Your task to perform on an android device: turn off notifications settings in the gmail app Image 0: 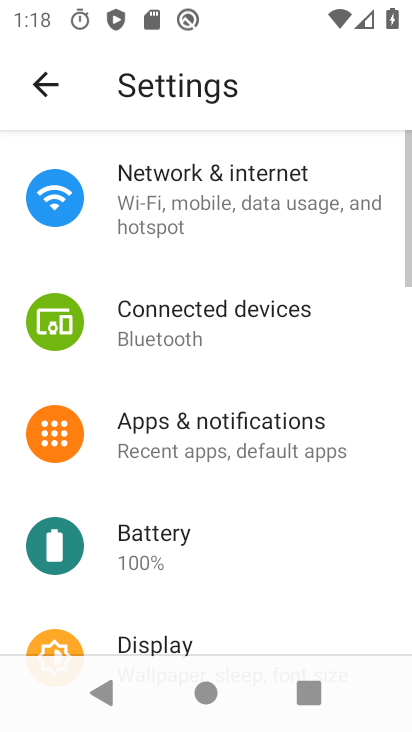
Step 0: press home button
Your task to perform on an android device: turn off notifications settings in the gmail app Image 1: 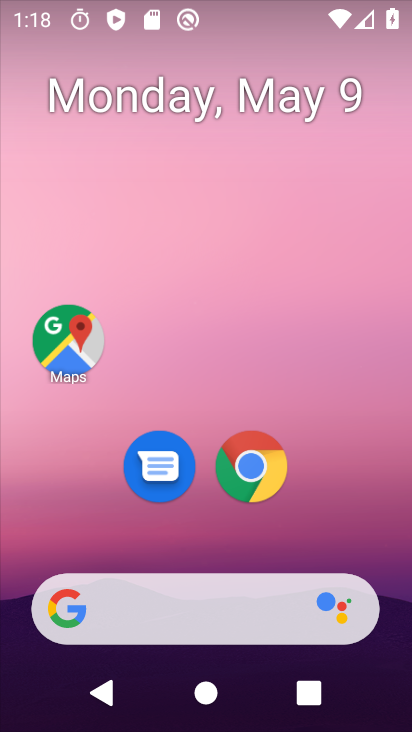
Step 1: drag from (297, 634) to (324, 211)
Your task to perform on an android device: turn off notifications settings in the gmail app Image 2: 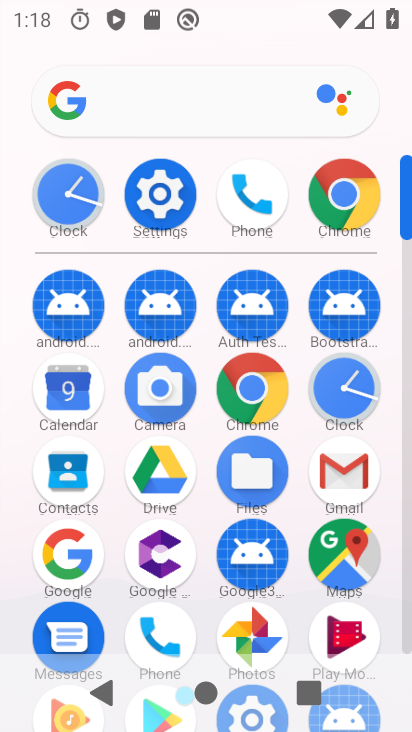
Step 2: click (321, 476)
Your task to perform on an android device: turn off notifications settings in the gmail app Image 3: 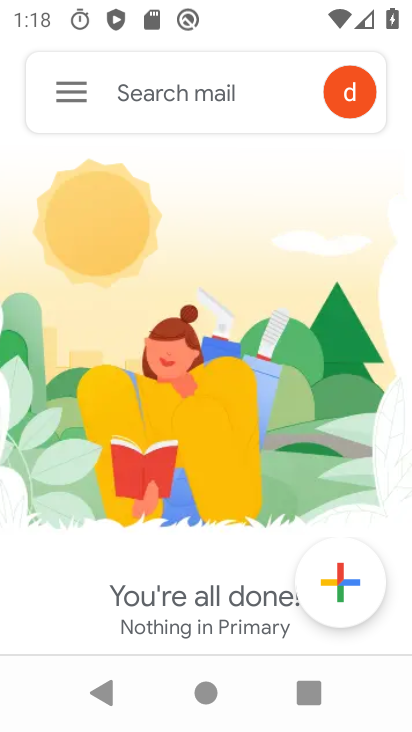
Step 3: click (67, 100)
Your task to perform on an android device: turn off notifications settings in the gmail app Image 4: 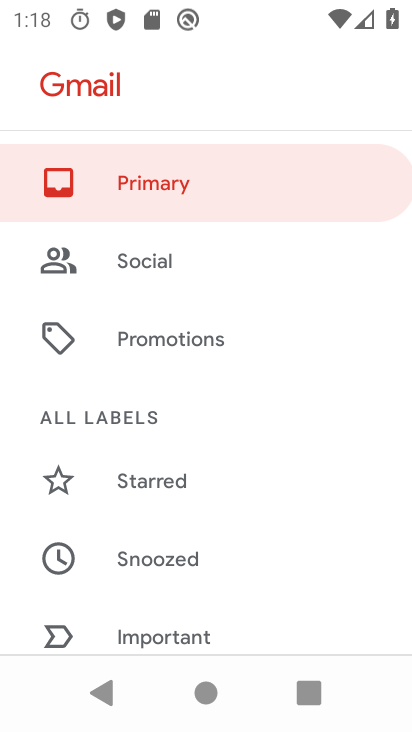
Step 4: drag from (134, 493) to (167, 244)
Your task to perform on an android device: turn off notifications settings in the gmail app Image 5: 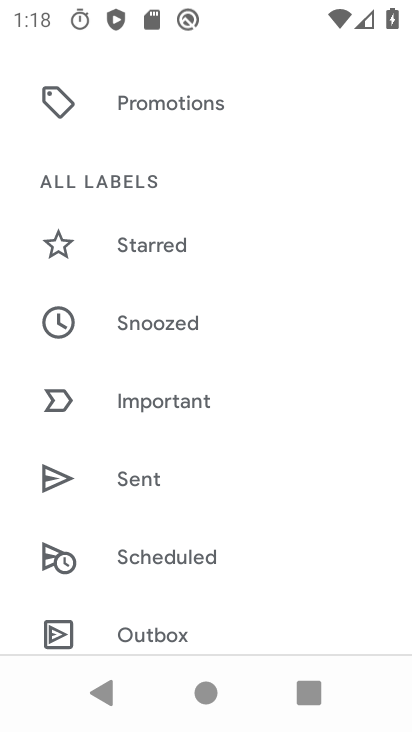
Step 5: drag from (148, 527) to (190, 298)
Your task to perform on an android device: turn off notifications settings in the gmail app Image 6: 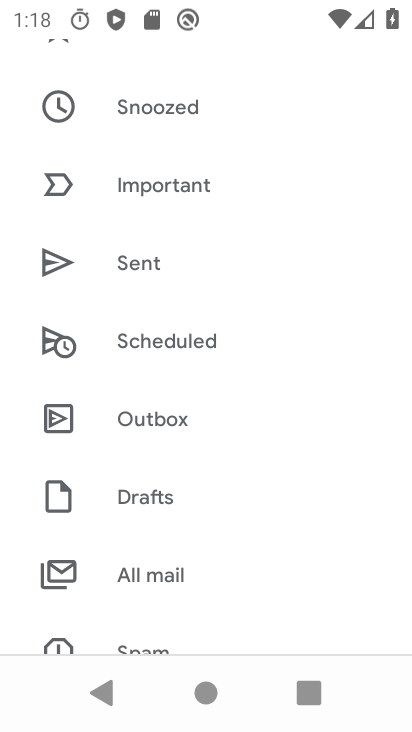
Step 6: drag from (157, 524) to (199, 282)
Your task to perform on an android device: turn off notifications settings in the gmail app Image 7: 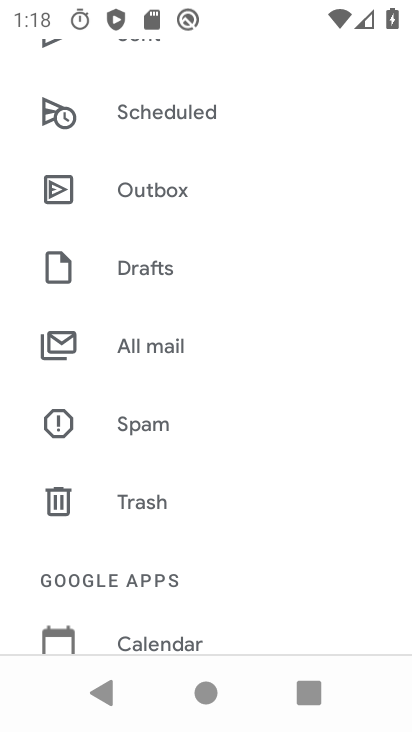
Step 7: drag from (134, 523) to (187, 326)
Your task to perform on an android device: turn off notifications settings in the gmail app Image 8: 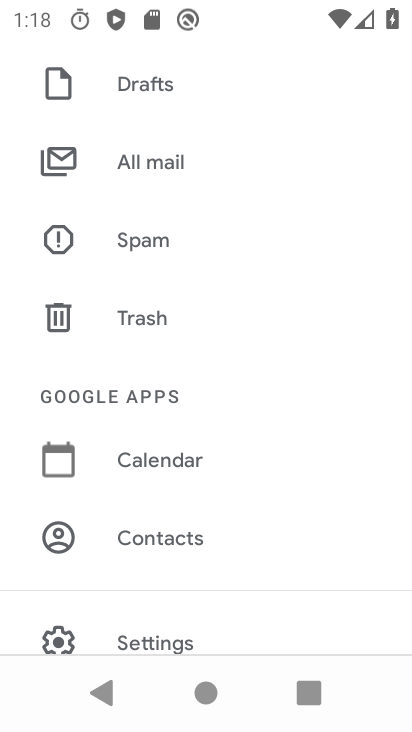
Step 8: drag from (174, 434) to (175, 366)
Your task to perform on an android device: turn off notifications settings in the gmail app Image 9: 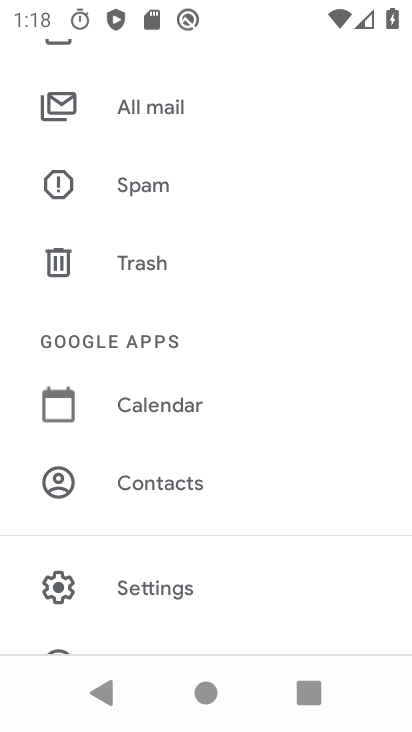
Step 9: drag from (164, 447) to (173, 389)
Your task to perform on an android device: turn off notifications settings in the gmail app Image 10: 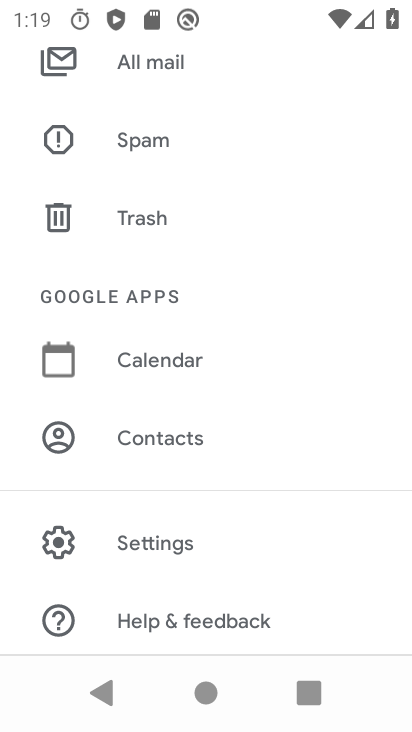
Step 10: click (192, 547)
Your task to perform on an android device: turn off notifications settings in the gmail app Image 11: 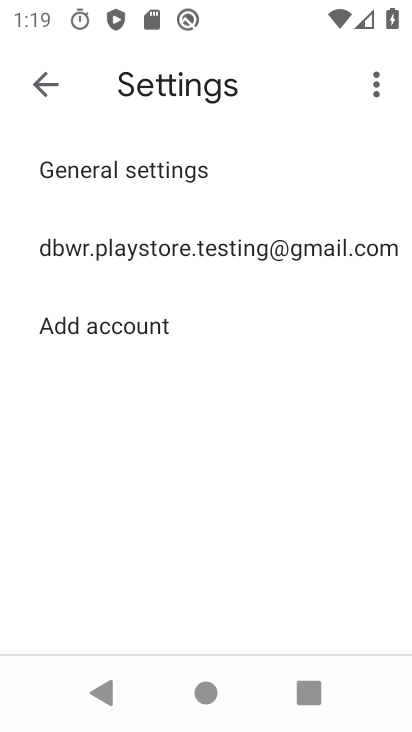
Step 11: click (221, 186)
Your task to perform on an android device: turn off notifications settings in the gmail app Image 12: 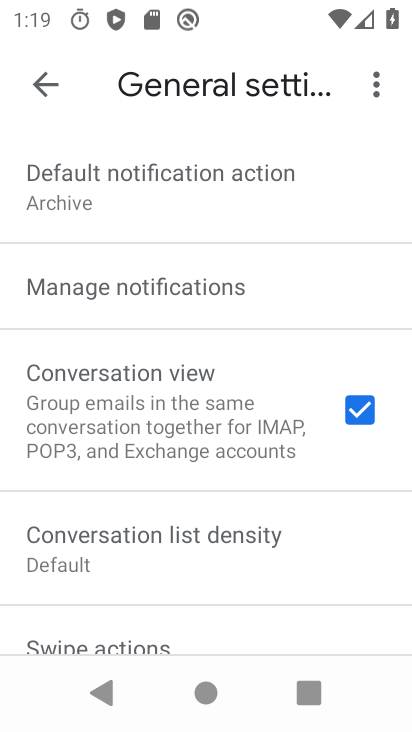
Step 12: click (165, 293)
Your task to perform on an android device: turn off notifications settings in the gmail app Image 13: 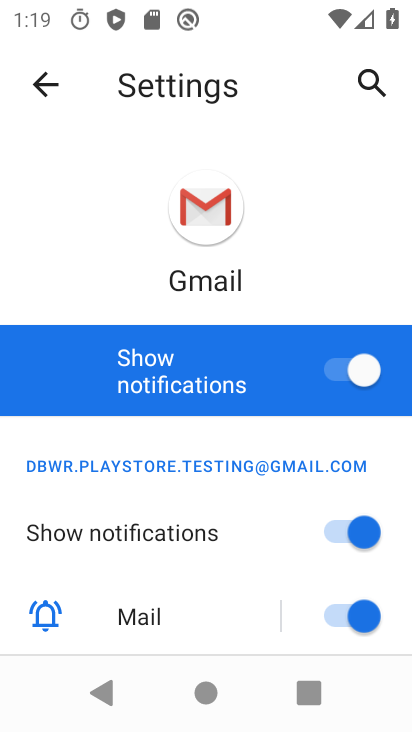
Step 13: click (328, 379)
Your task to perform on an android device: turn off notifications settings in the gmail app Image 14: 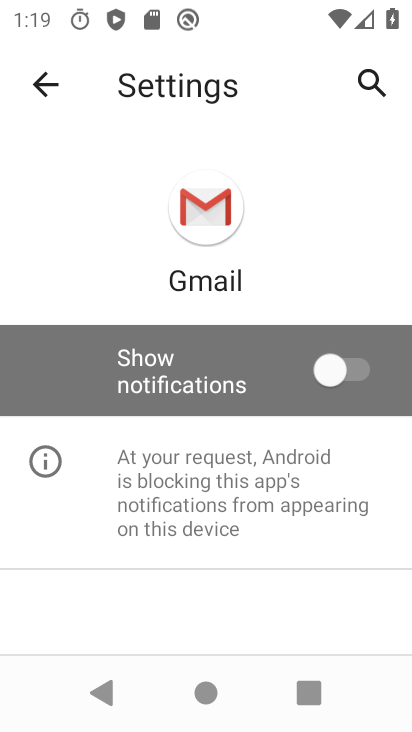
Step 14: task complete